Your task to perform on an android device: change the clock display to digital Image 0: 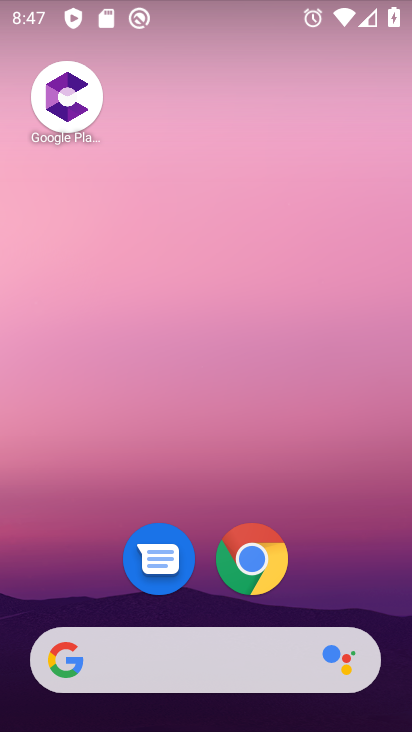
Step 0: drag from (205, 597) to (288, 98)
Your task to perform on an android device: change the clock display to digital Image 1: 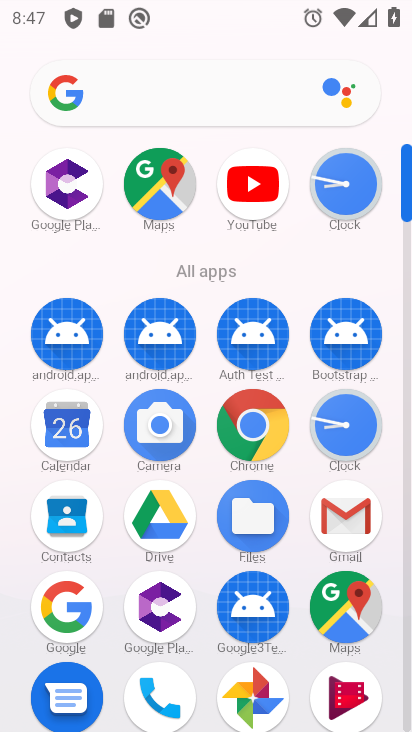
Step 1: click (349, 187)
Your task to perform on an android device: change the clock display to digital Image 2: 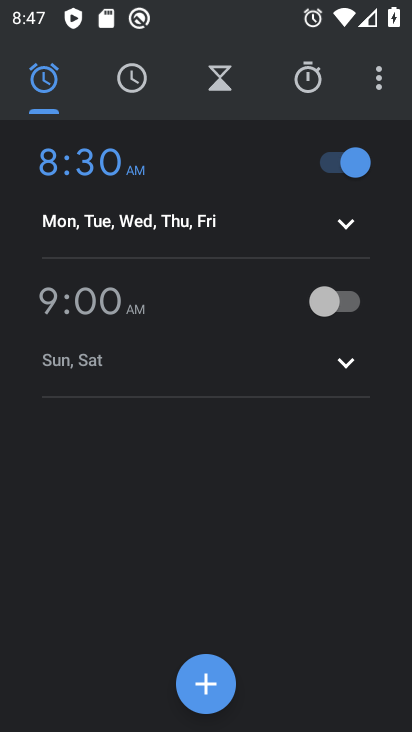
Step 2: click (367, 82)
Your task to perform on an android device: change the clock display to digital Image 3: 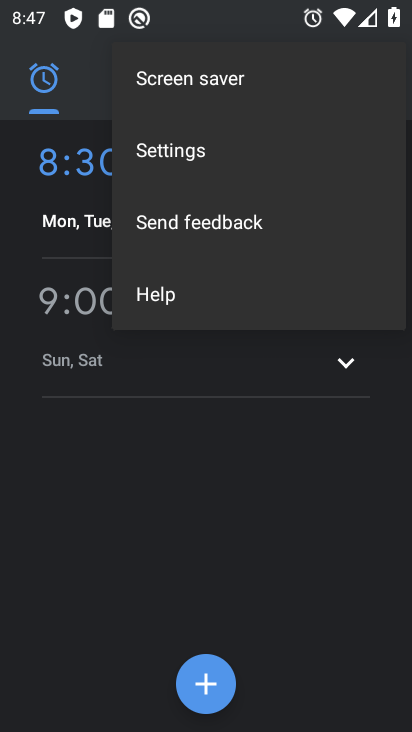
Step 3: click (221, 146)
Your task to perform on an android device: change the clock display to digital Image 4: 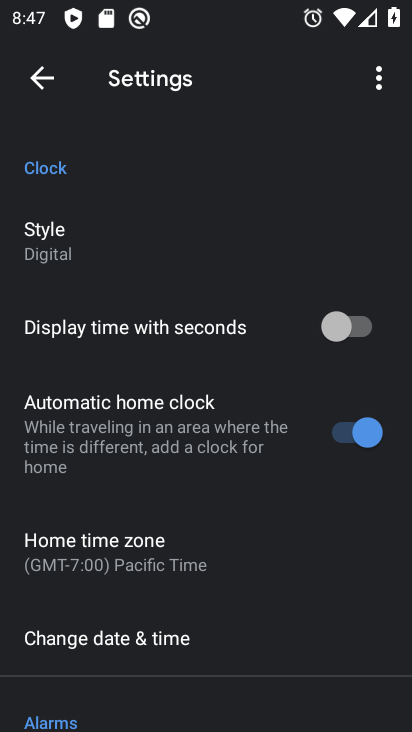
Step 4: task complete